Your task to perform on an android device: check battery use Image 0: 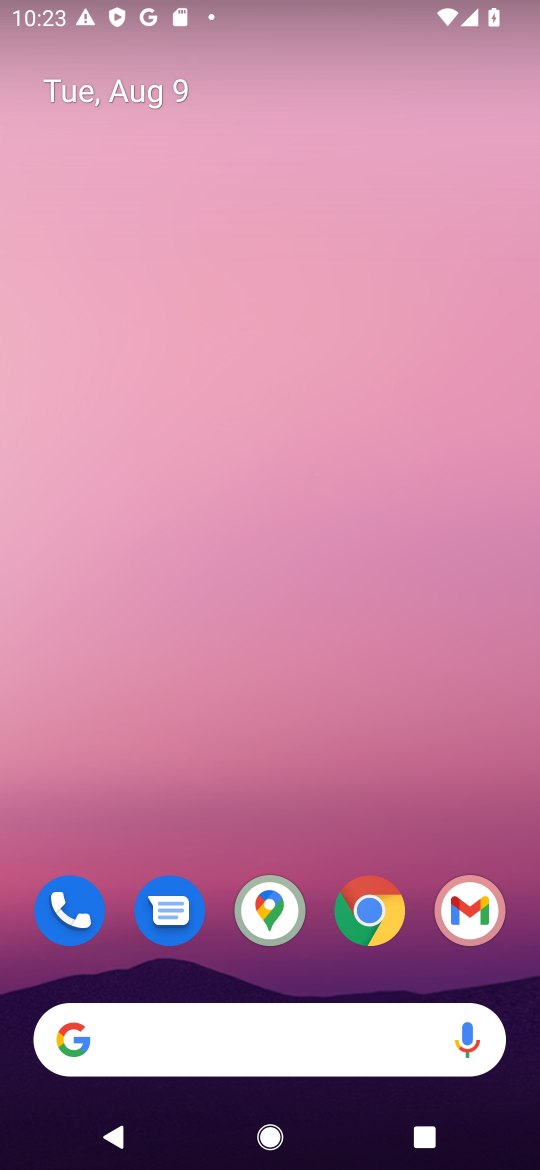
Step 0: click (506, 983)
Your task to perform on an android device: check battery use Image 1: 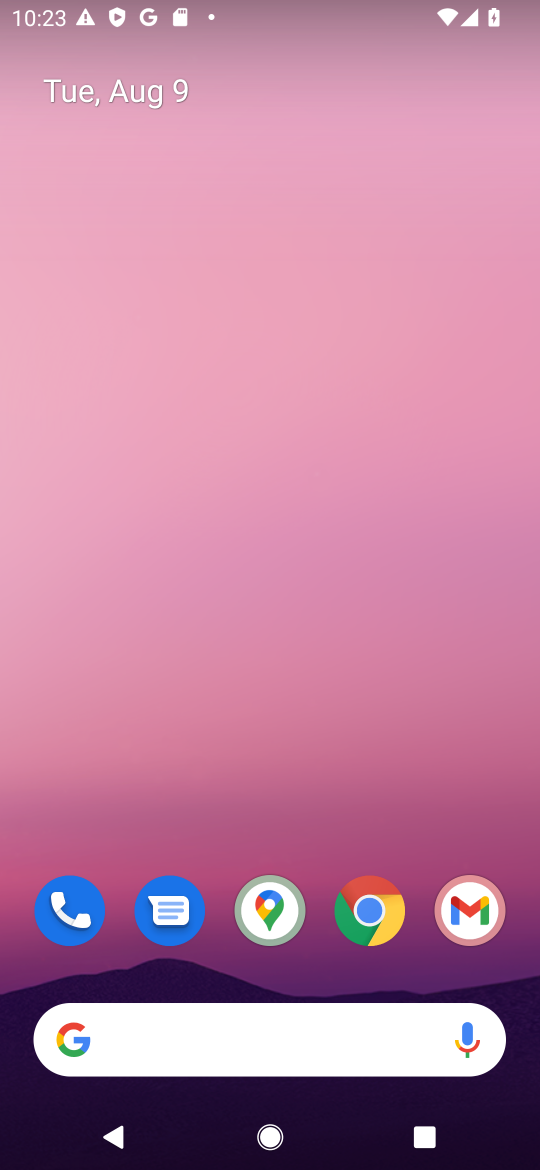
Step 1: drag from (112, 951) to (533, 214)
Your task to perform on an android device: check battery use Image 2: 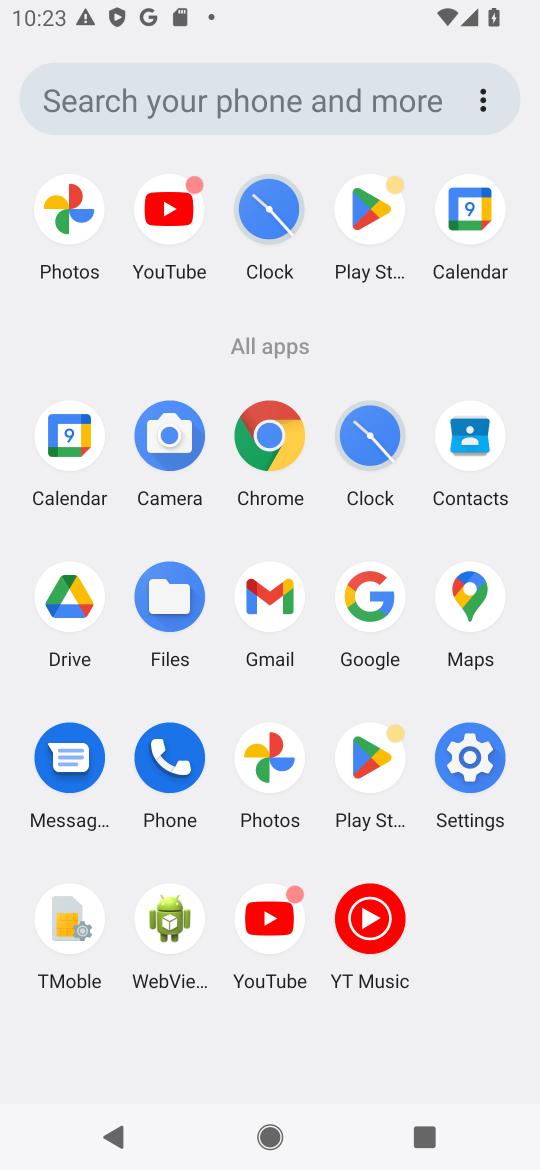
Step 2: click (477, 756)
Your task to perform on an android device: check battery use Image 3: 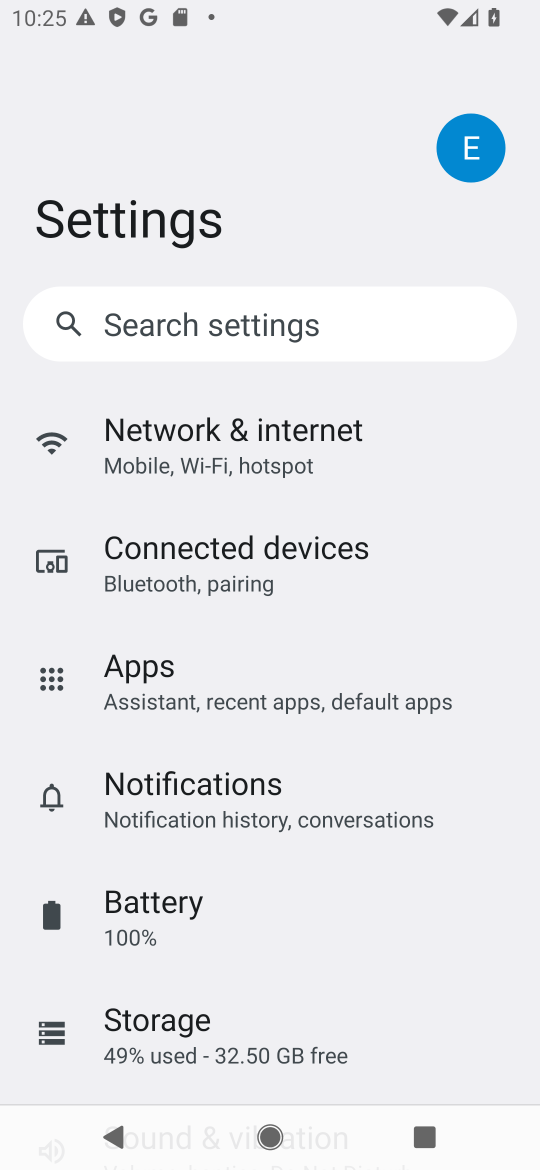
Step 3: click (101, 913)
Your task to perform on an android device: check battery use Image 4: 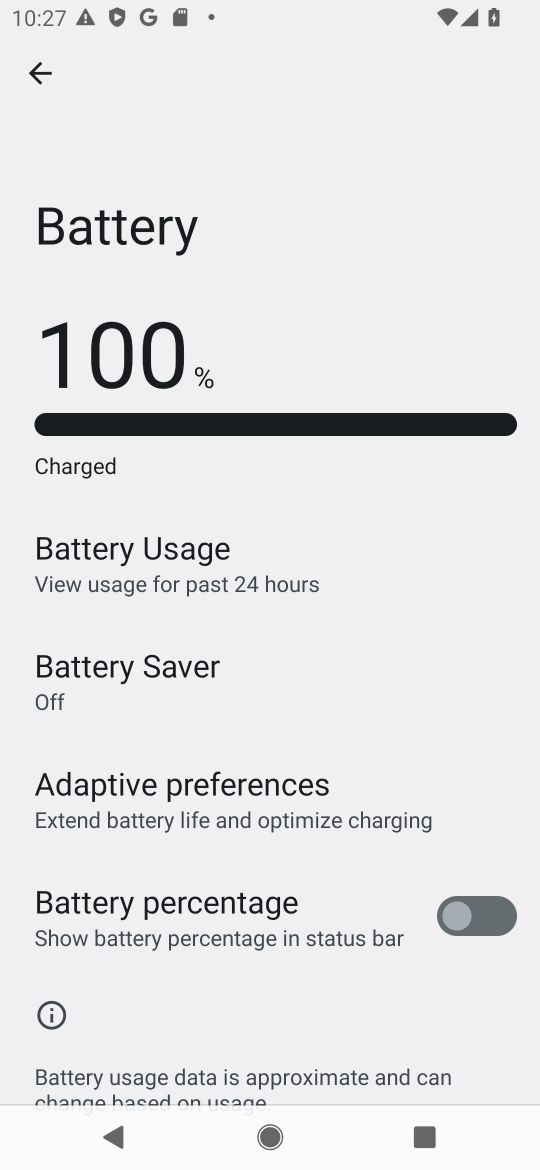
Step 4: task complete